Your task to perform on an android device: Go to Wikipedia Image 0: 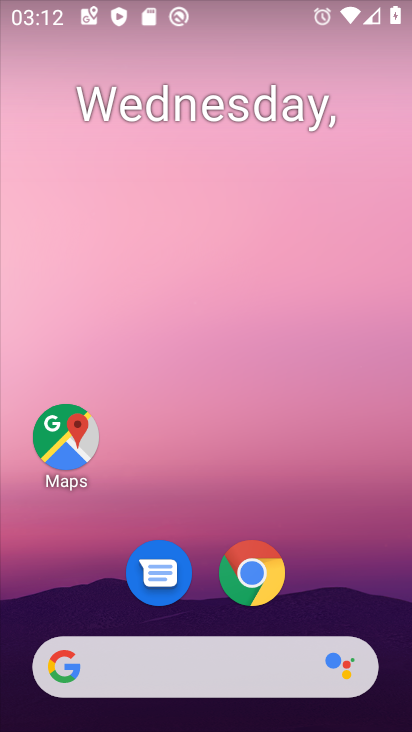
Step 0: click (253, 578)
Your task to perform on an android device: Go to Wikipedia Image 1: 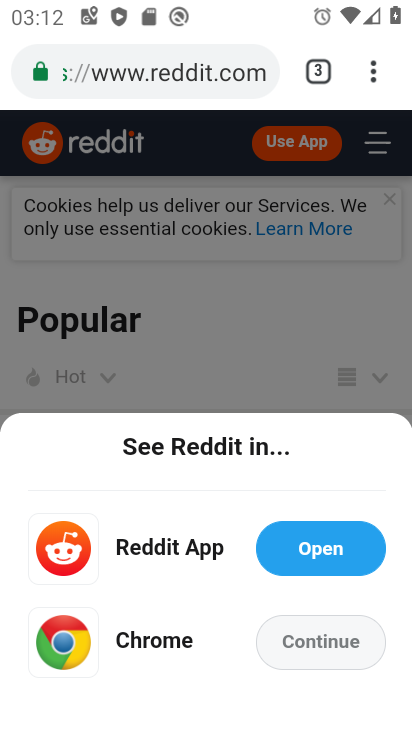
Step 1: click (371, 76)
Your task to perform on an android device: Go to Wikipedia Image 2: 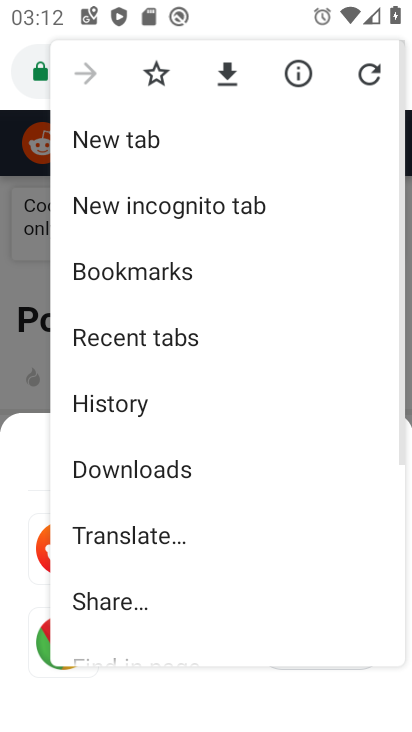
Step 2: click (151, 139)
Your task to perform on an android device: Go to Wikipedia Image 3: 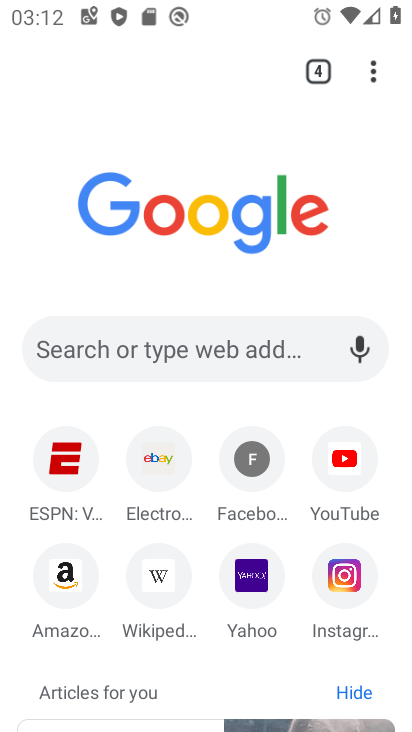
Step 3: click (148, 578)
Your task to perform on an android device: Go to Wikipedia Image 4: 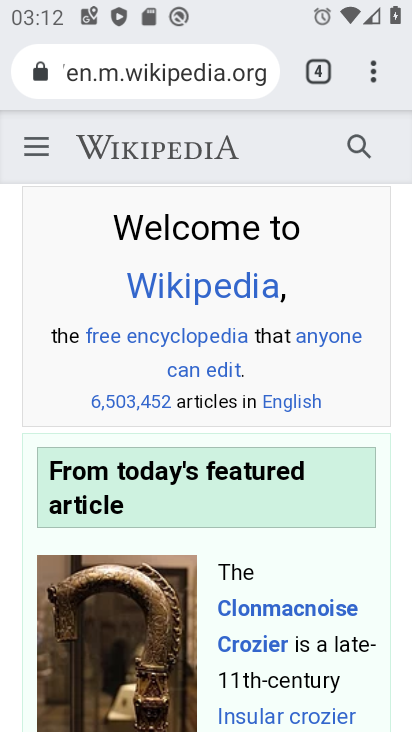
Step 4: task complete